Your task to perform on an android device: change the clock display to show seconds Image 0: 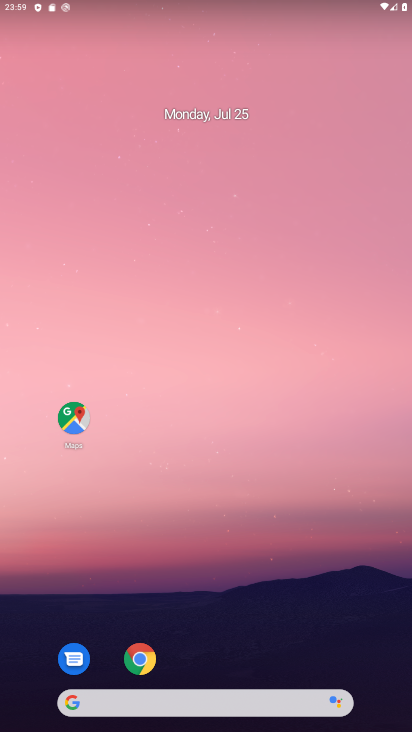
Step 0: press home button
Your task to perform on an android device: change the clock display to show seconds Image 1: 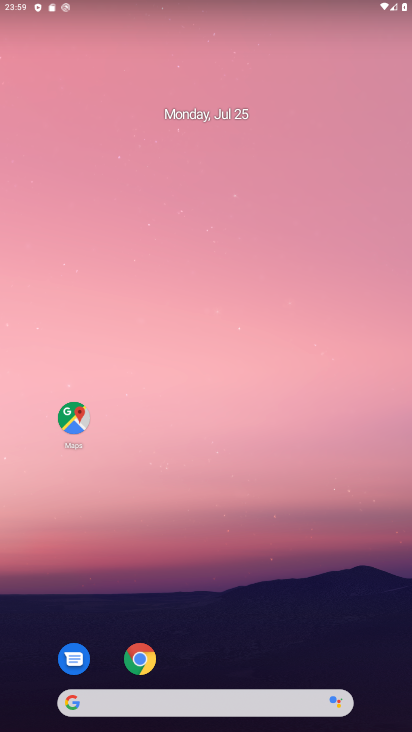
Step 1: drag from (299, 615) to (397, 19)
Your task to perform on an android device: change the clock display to show seconds Image 2: 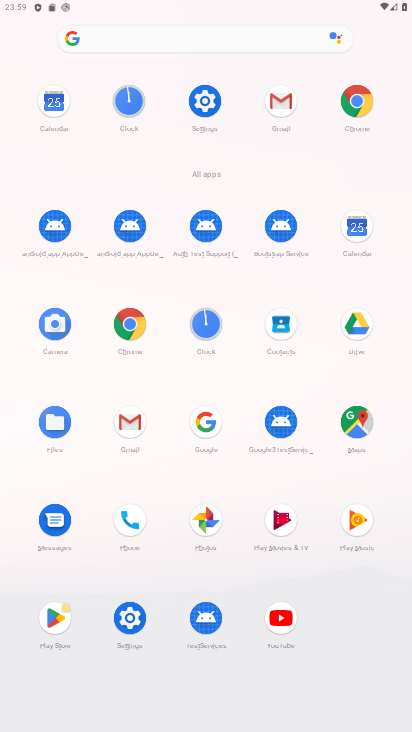
Step 2: click (197, 316)
Your task to perform on an android device: change the clock display to show seconds Image 3: 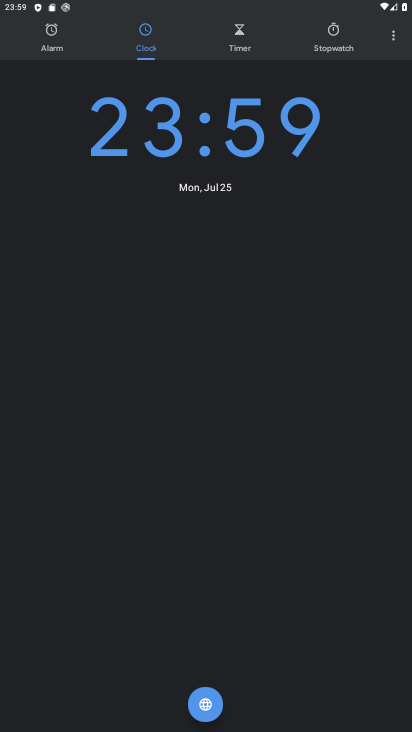
Step 3: click (395, 32)
Your task to perform on an android device: change the clock display to show seconds Image 4: 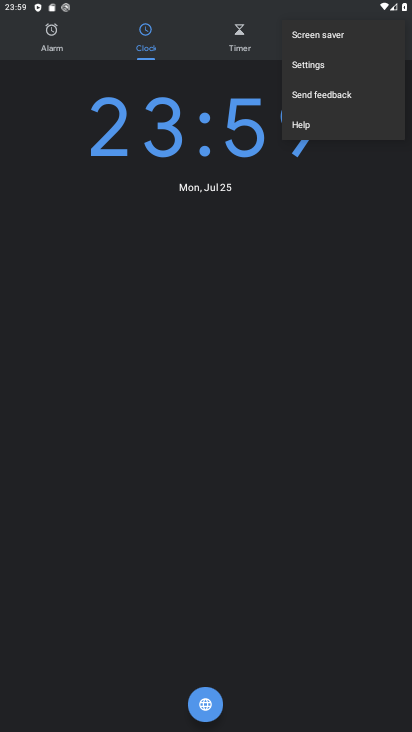
Step 4: click (318, 64)
Your task to perform on an android device: change the clock display to show seconds Image 5: 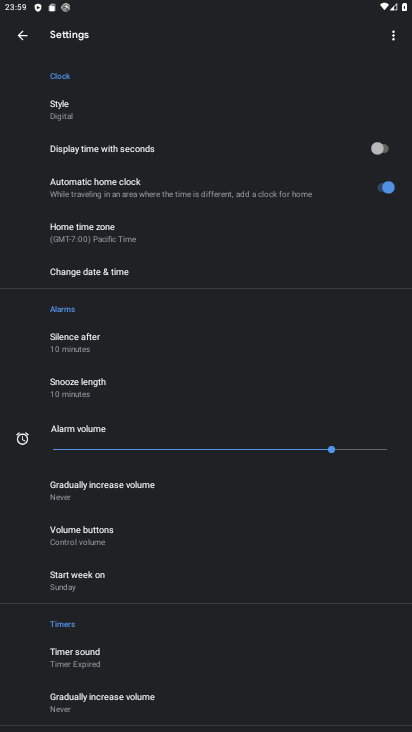
Step 5: click (373, 142)
Your task to perform on an android device: change the clock display to show seconds Image 6: 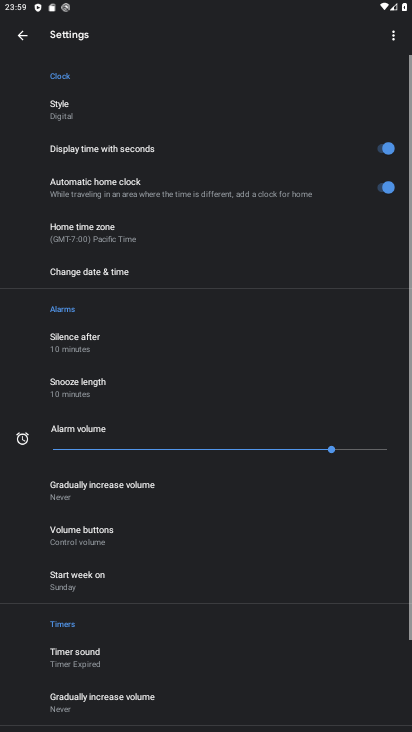
Step 6: task complete